Your task to perform on an android device: change timer sound Image 0: 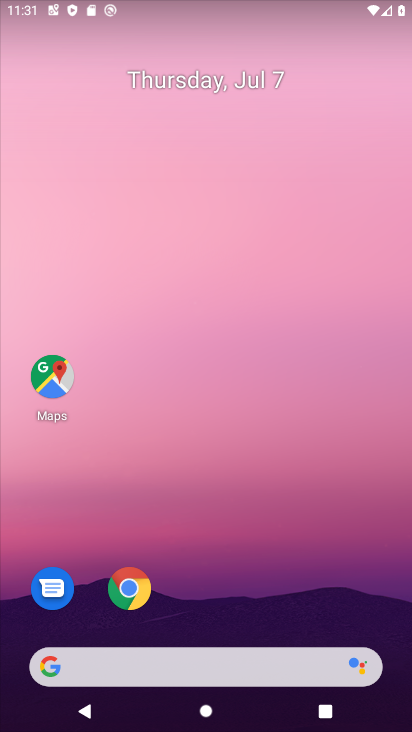
Step 0: drag from (245, 547) to (175, 169)
Your task to perform on an android device: change timer sound Image 1: 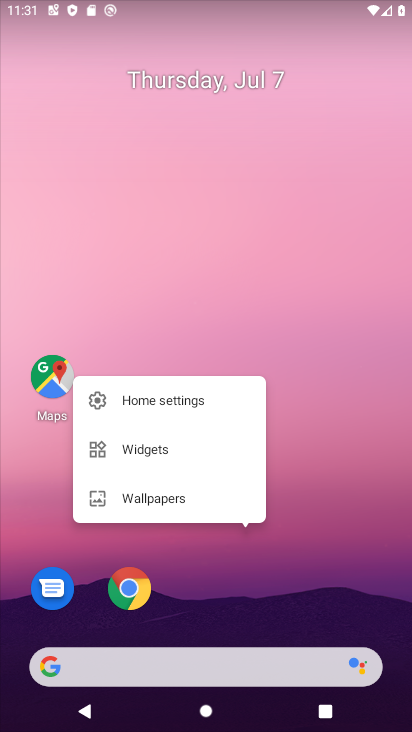
Step 1: click (346, 537)
Your task to perform on an android device: change timer sound Image 2: 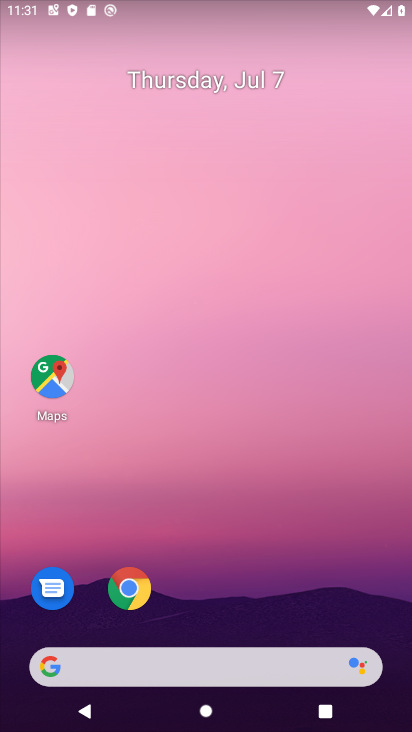
Step 2: drag from (276, 577) to (212, 48)
Your task to perform on an android device: change timer sound Image 3: 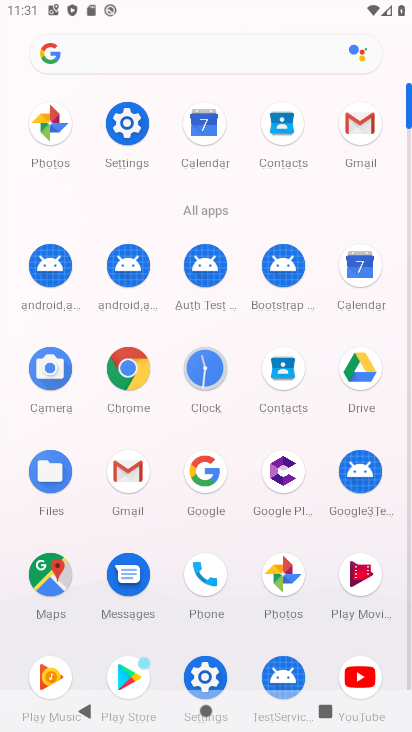
Step 3: click (209, 373)
Your task to perform on an android device: change timer sound Image 4: 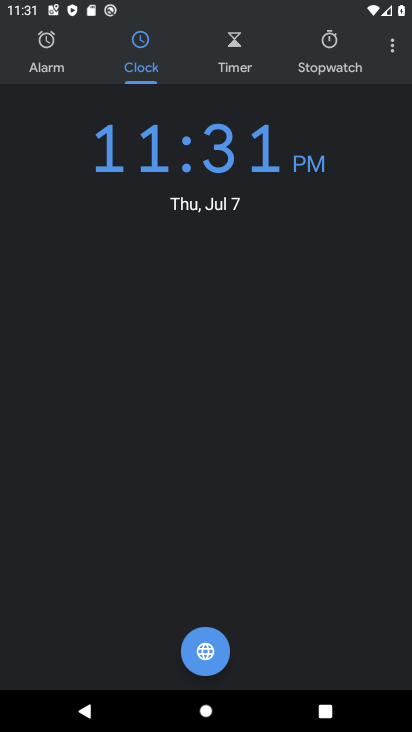
Step 4: click (391, 43)
Your task to perform on an android device: change timer sound Image 5: 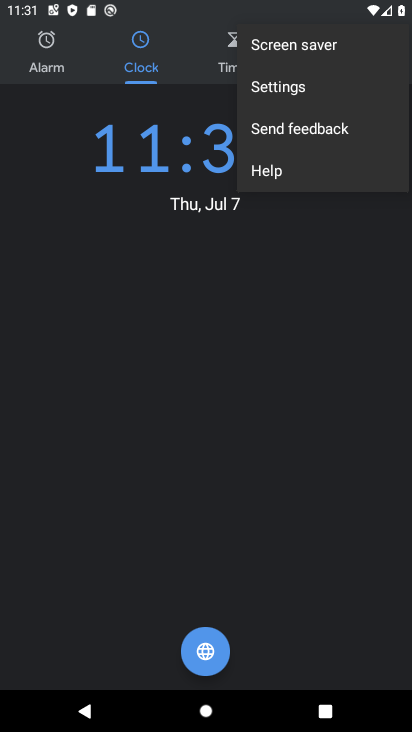
Step 5: click (289, 90)
Your task to perform on an android device: change timer sound Image 6: 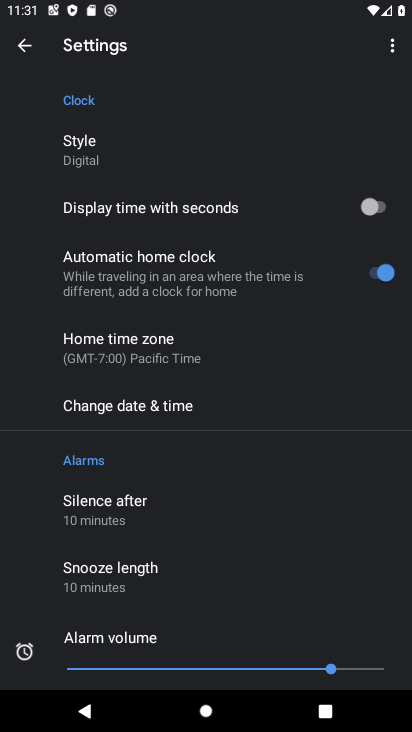
Step 6: drag from (249, 584) to (210, 271)
Your task to perform on an android device: change timer sound Image 7: 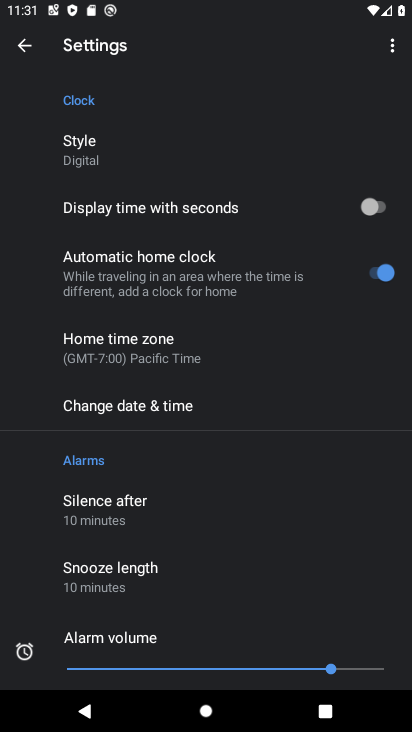
Step 7: drag from (217, 587) to (152, 200)
Your task to perform on an android device: change timer sound Image 8: 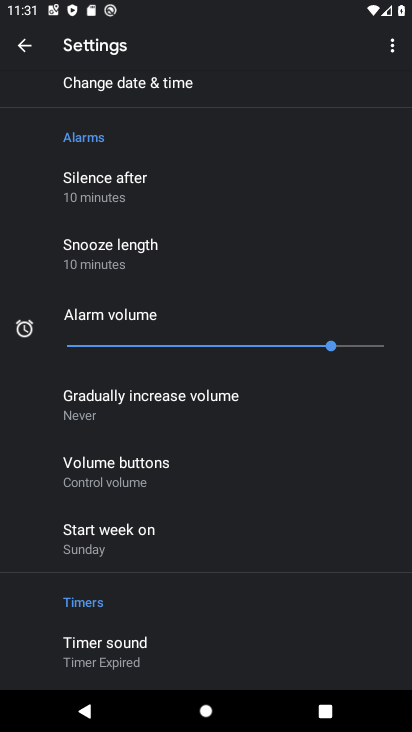
Step 8: click (102, 646)
Your task to perform on an android device: change timer sound Image 9: 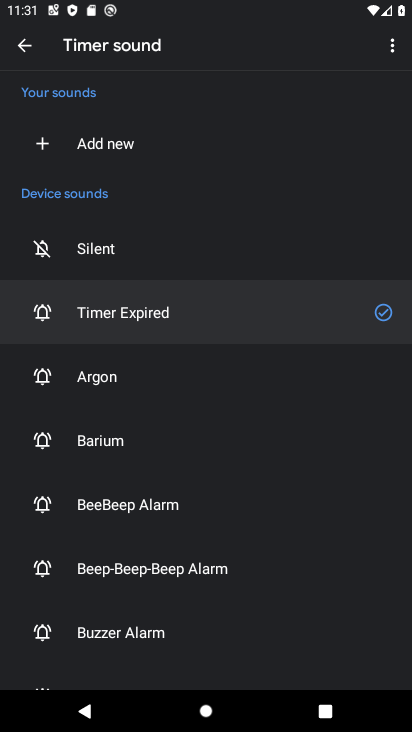
Step 9: click (83, 383)
Your task to perform on an android device: change timer sound Image 10: 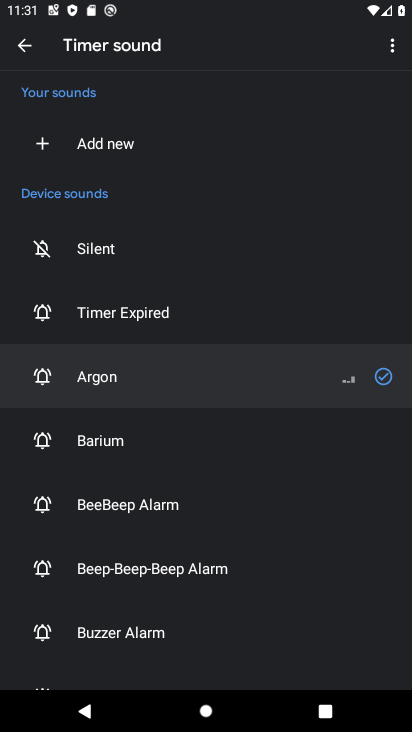
Step 10: task complete